Your task to perform on an android device: Go to Amazon Image 0: 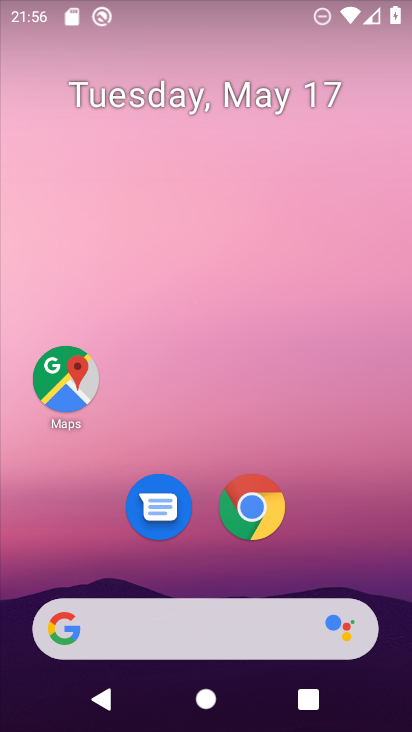
Step 0: click (266, 515)
Your task to perform on an android device: Go to Amazon Image 1: 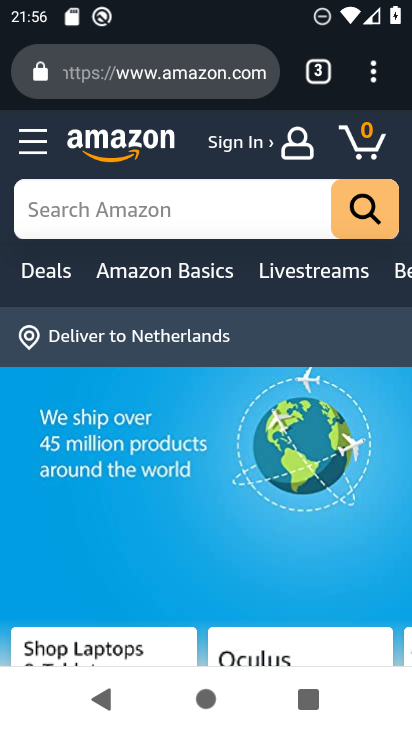
Step 1: task complete